Your task to perform on an android device: Open ESPN.com Image 0: 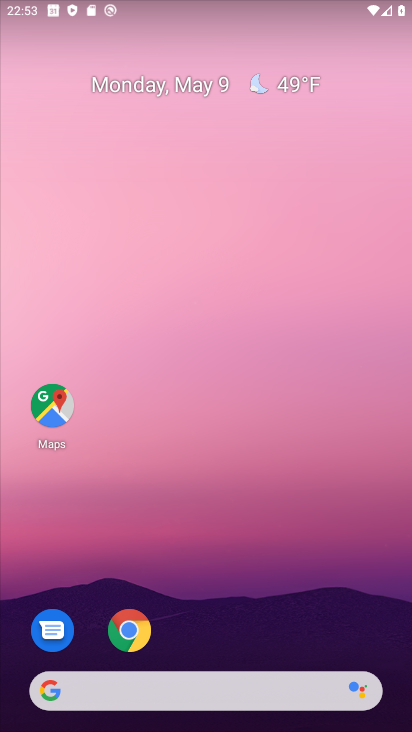
Step 0: click (265, 599)
Your task to perform on an android device: Open ESPN.com Image 1: 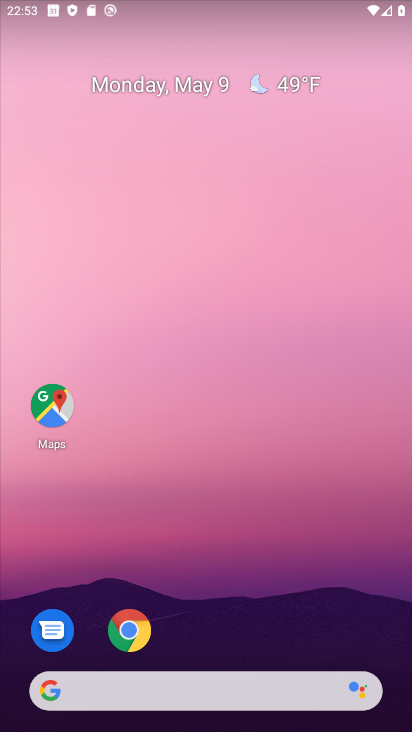
Step 1: click (131, 620)
Your task to perform on an android device: Open ESPN.com Image 2: 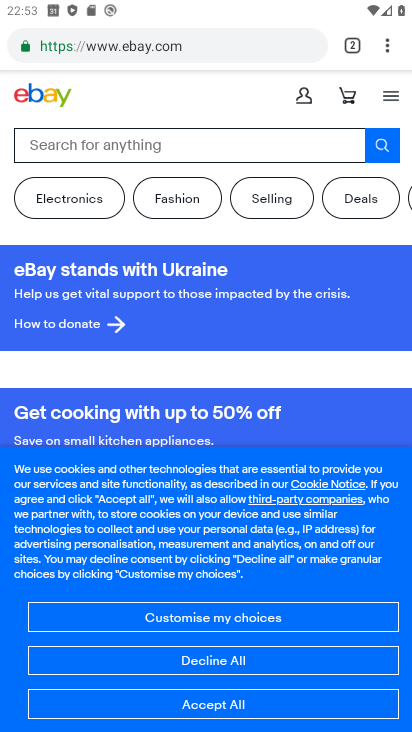
Step 2: click (349, 42)
Your task to perform on an android device: Open ESPN.com Image 3: 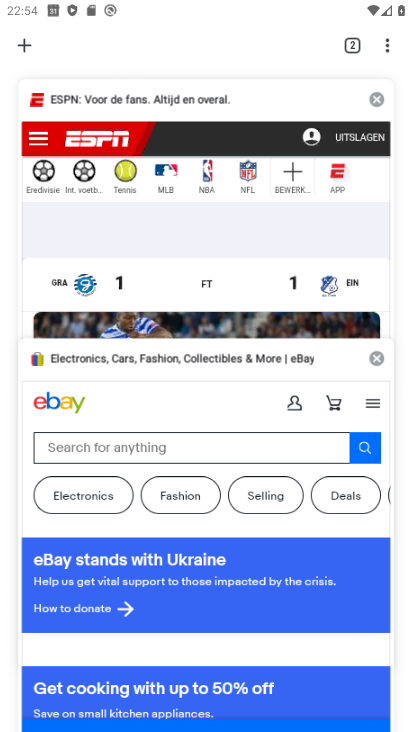
Step 3: click (83, 172)
Your task to perform on an android device: Open ESPN.com Image 4: 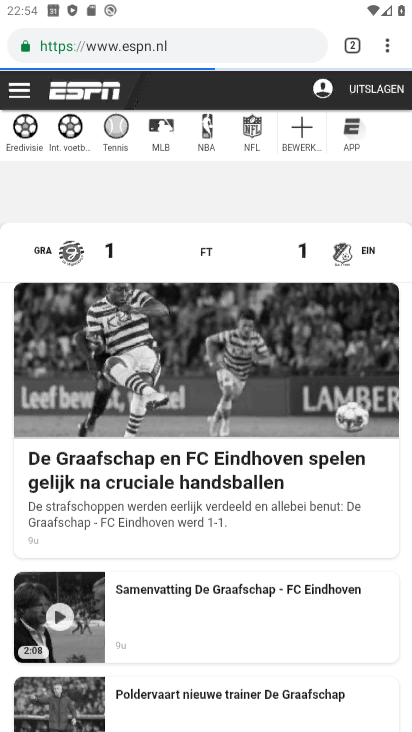
Step 4: task complete